Your task to perform on an android device: Go to internet settings Image 0: 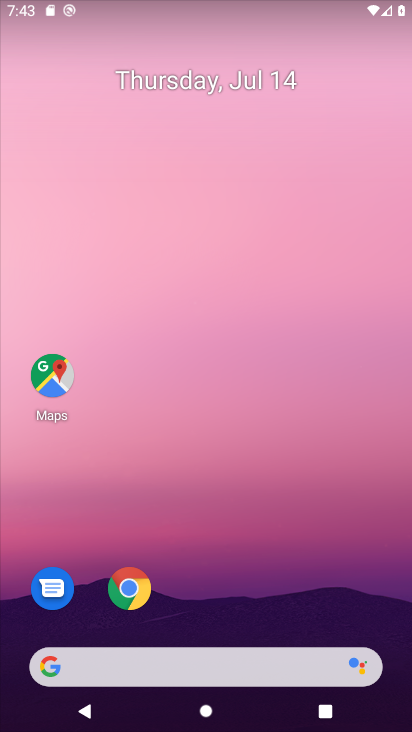
Step 0: drag from (215, 625) to (239, 10)
Your task to perform on an android device: Go to internet settings Image 1: 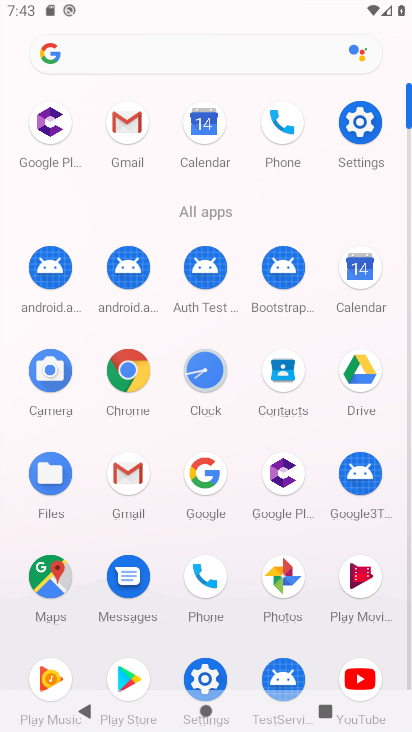
Step 1: click (368, 116)
Your task to perform on an android device: Go to internet settings Image 2: 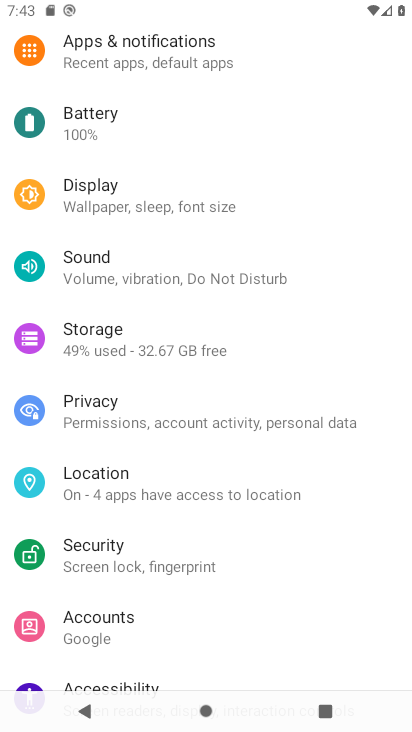
Step 2: click (260, 558)
Your task to perform on an android device: Go to internet settings Image 3: 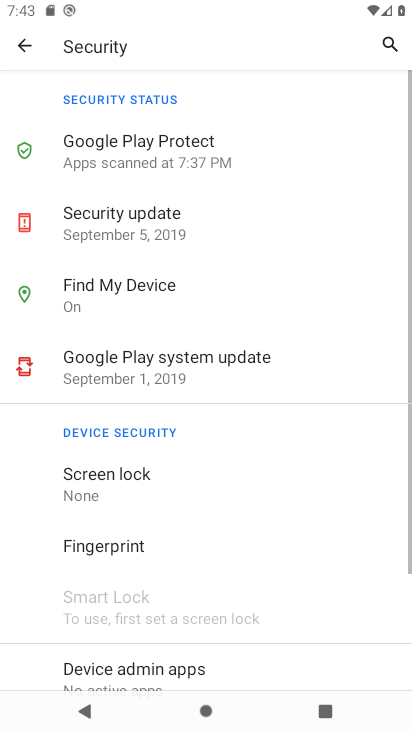
Step 3: click (29, 43)
Your task to perform on an android device: Go to internet settings Image 4: 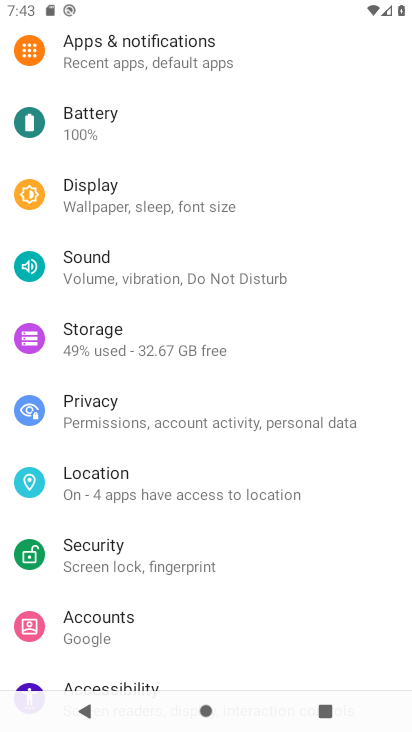
Step 4: drag from (144, 134) to (171, 570)
Your task to perform on an android device: Go to internet settings Image 5: 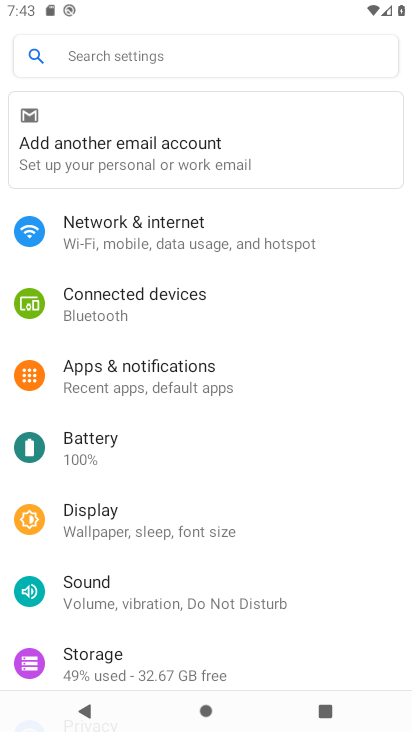
Step 5: click (122, 248)
Your task to perform on an android device: Go to internet settings Image 6: 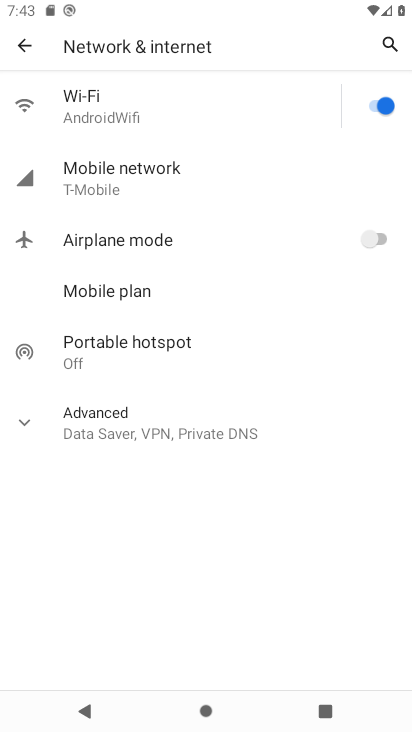
Step 6: task complete